Your task to perform on an android device: create a new album in the google photos Image 0: 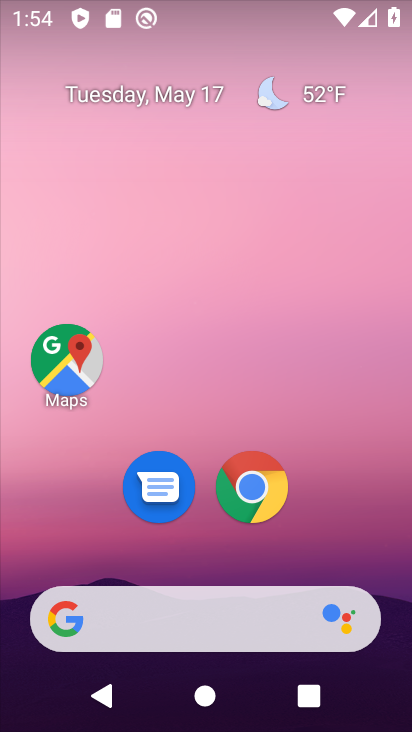
Step 0: drag from (403, 540) to (410, 207)
Your task to perform on an android device: create a new album in the google photos Image 1: 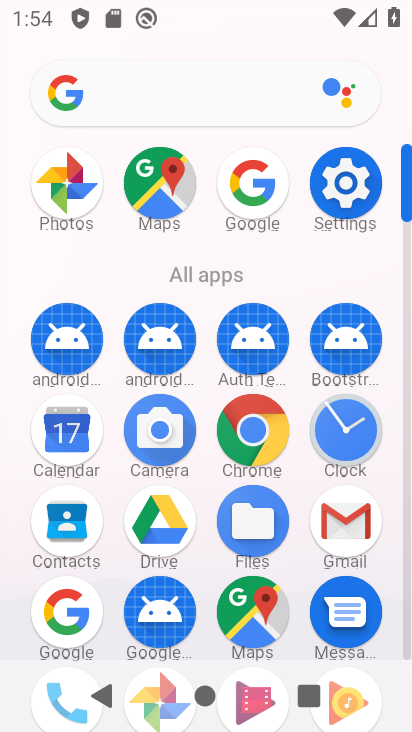
Step 1: drag from (410, 156) to (399, 97)
Your task to perform on an android device: create a new album in the google photos Image 2: 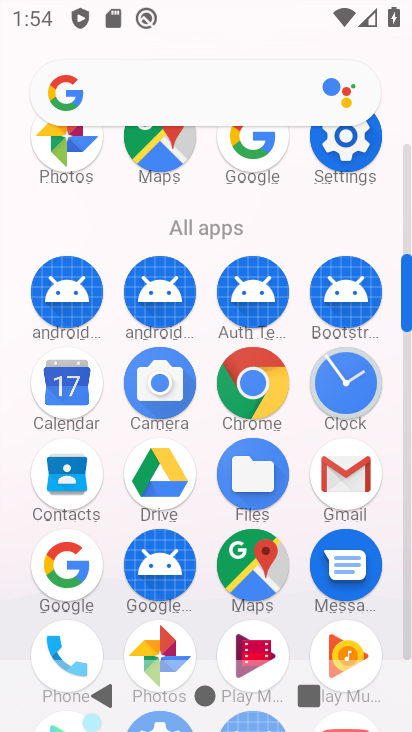
Step 2: click (173, 628)
Your task to perform on an android device: create a new album in the google photos Image 3: 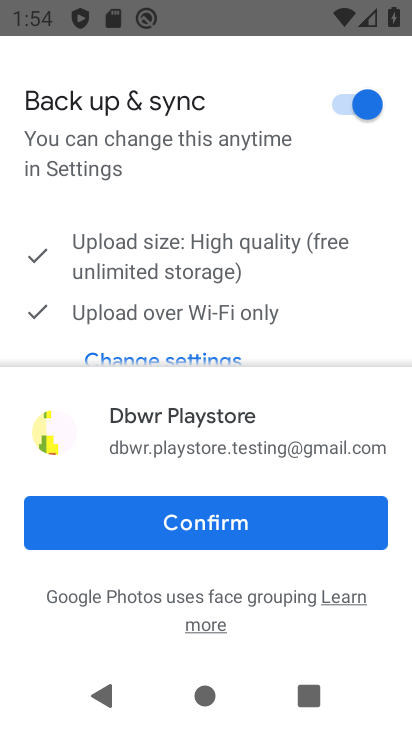
Step 3: click (223, 525)
Your task to perform on an android device: create a new album in the google photos Image 4: 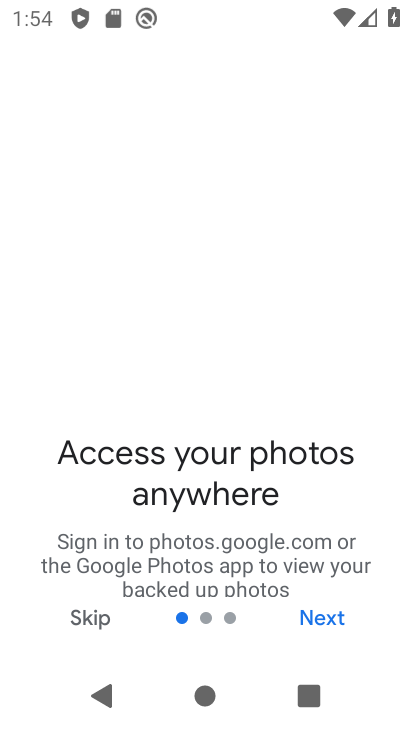
Step 4: click (340, 612)
Your task to perform on an android device: create a new album in the google photos Image 5: 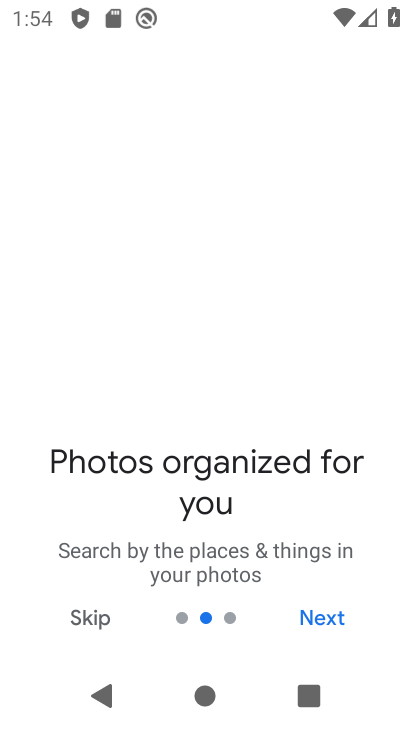
Step 5: click (338, 612)
Your task to perform on an android device: create a new album in the google photos Image 6: 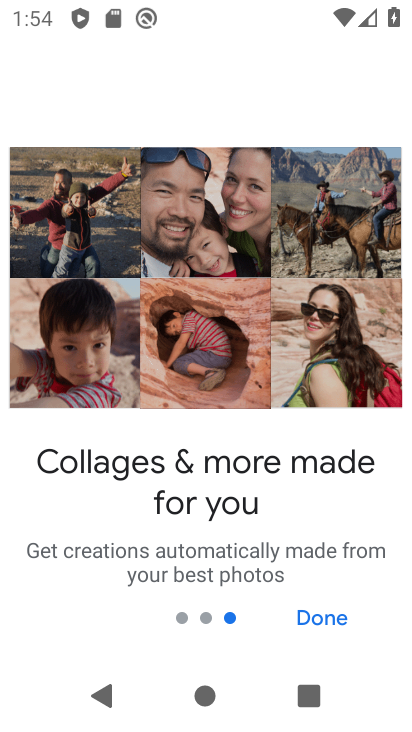
Step 6: click (338, 612)
Your task to perform on an android device: create a new album in the google photos Image 7: 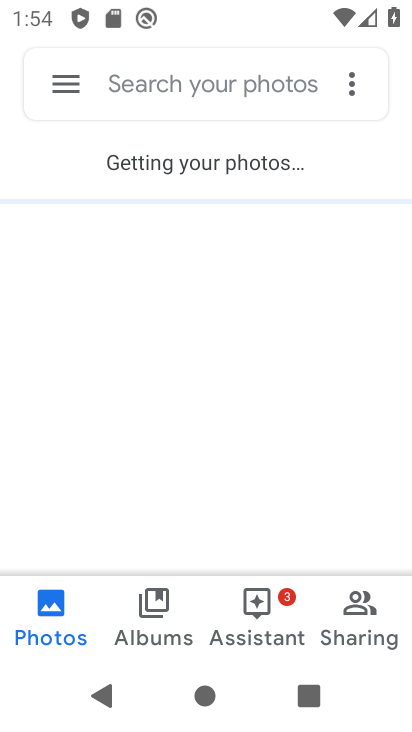
Step 7: click (75, 83)
Your task to perform on an android device: create a new album in the google photos Image 8: 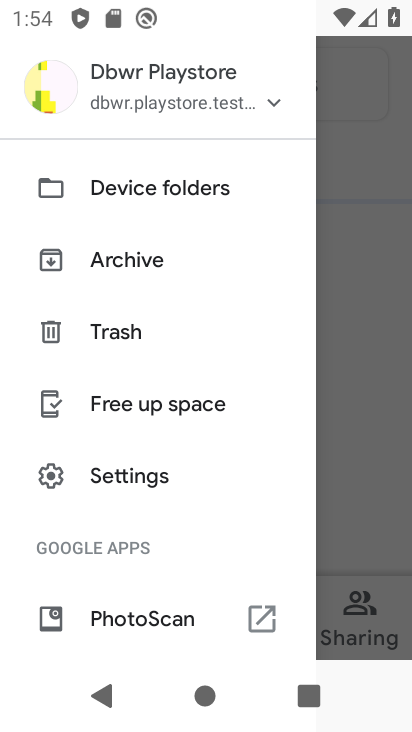
Step 8: click (373, 233)
Your task to perform on an android device: create a new album in the google photos Image 9: 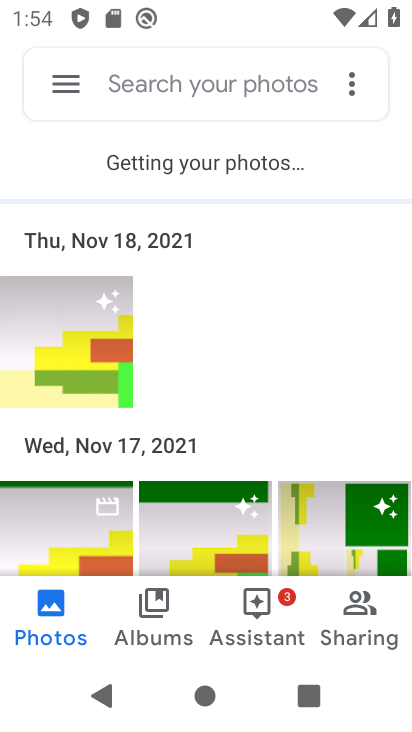
Step 9: click (350, 87)
Your task to perform on an android device: create a new album in the google photos Image 10: 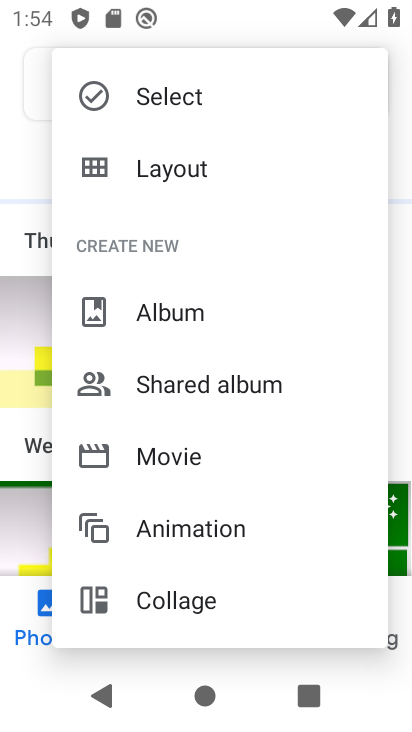
Step 10: click (189, 310)
Your task to perform on an android device: create a new album in the google photos Image 11: 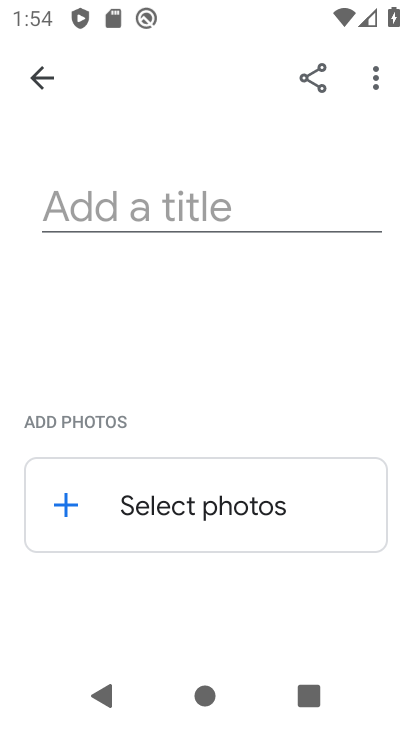
Step 11: click (164, 516)
Your task to perform on an android device: create a new album in the google photos Image 12: 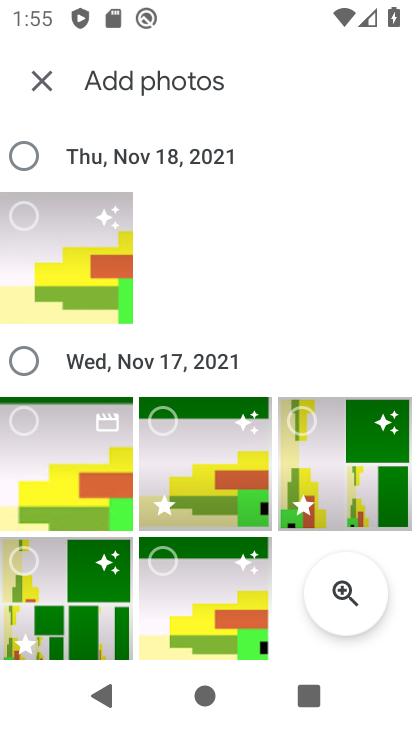
Step 12: click (43, 77)
Your task to perform on an android device: create a new album in the google photos Image 13: 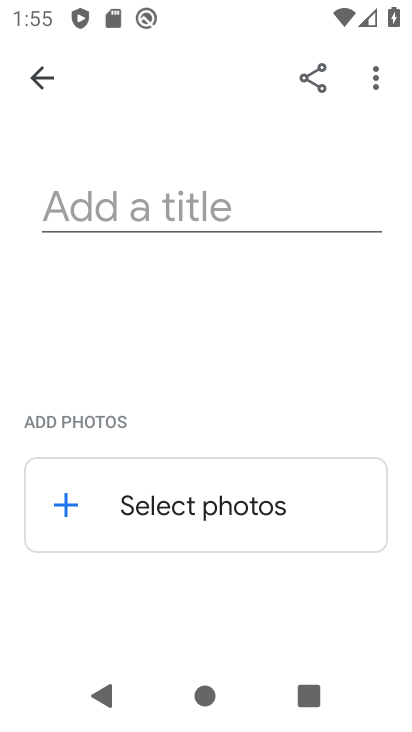
Step 13: click (156, 205)
Your task to perform on an android device: create a new album in the google photos Image 14: 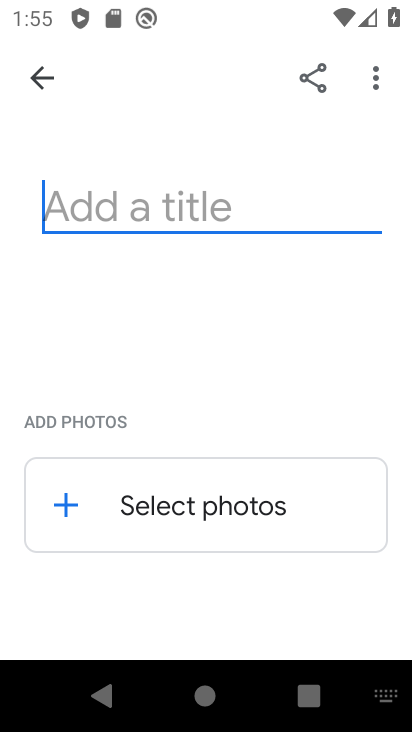
Step 14: type "etfyug"
Your task to perform on an android device: create a new album in the google photos Image 15: 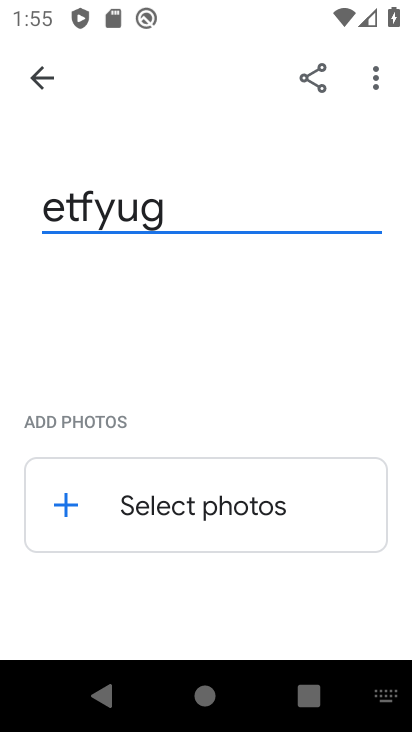
Step 15: drag from (411, 433) to (341, 311)
Your task to perform on an android device: create a new album in the google photos Image 16: 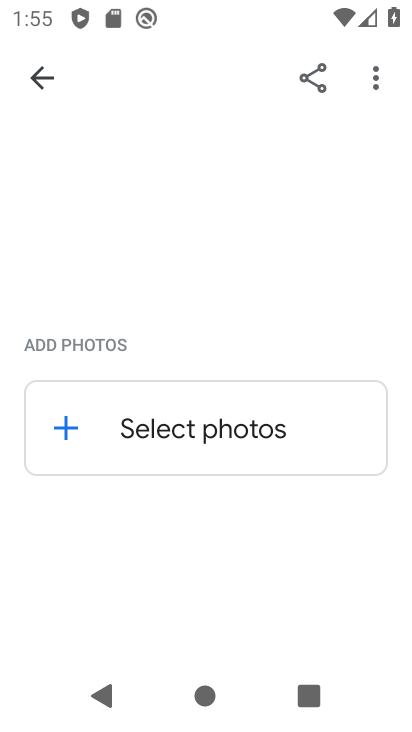
Step 16: click (130, 421)
Your task to perform on an android device: create a new album in the google photos Image 17: 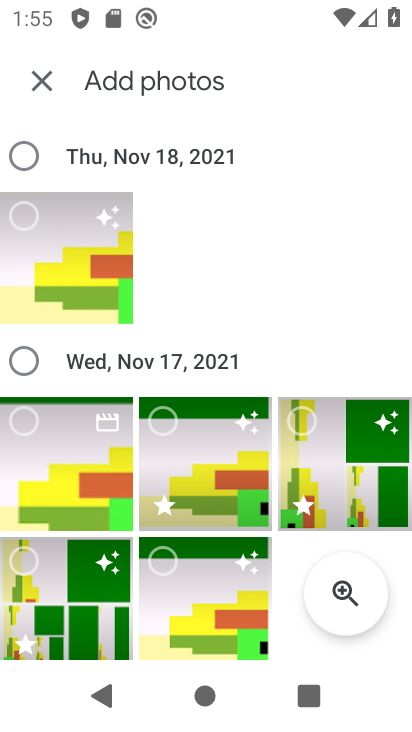
Step 17: click (29, 218)
Your task to perform on an android device: create a new album in the google photos Image 18: 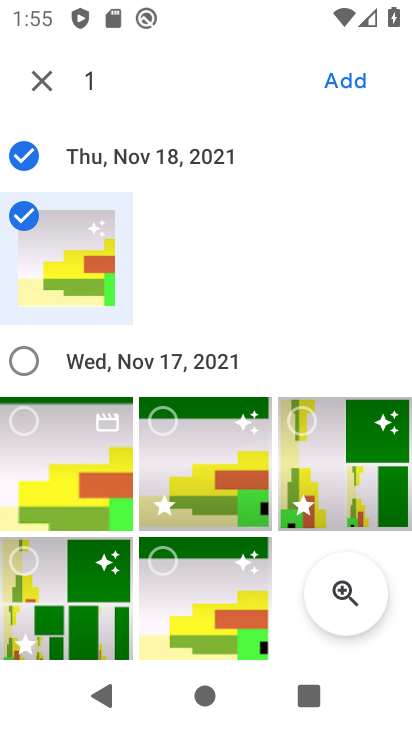
Step 18: click (27, 426)
Your task to perform on an android device: create a new album in the google photos Image 19: 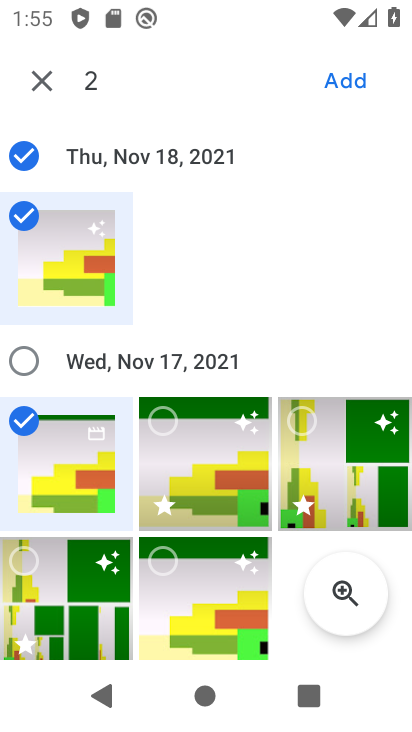
Step 19: click (294, 428)
Your task to perform on an android device: create a new album in the google photos Image 20: 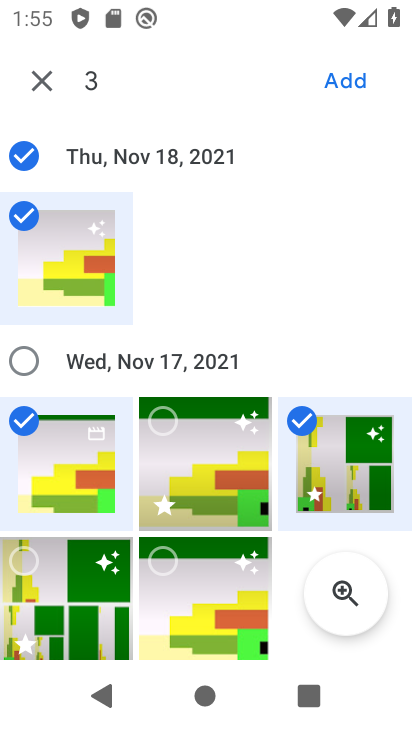
Step 20: click (354, 67)
Your task to perform on an android device: create a new album in the google photos Image 21: 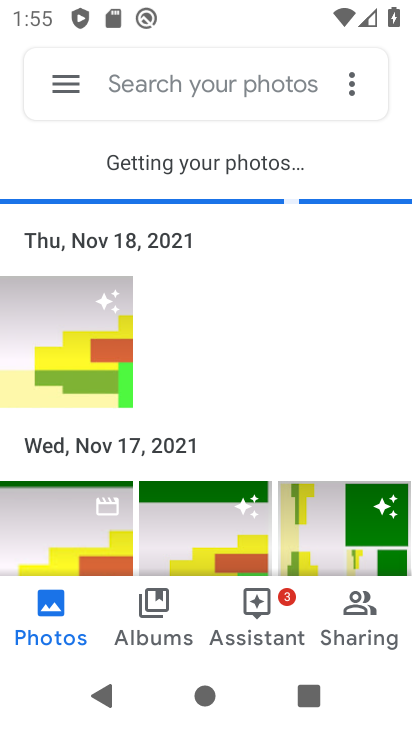
Step 21: task complete